Your task to perform on an android device: Open calendar and show me the second week of next month Image 0: 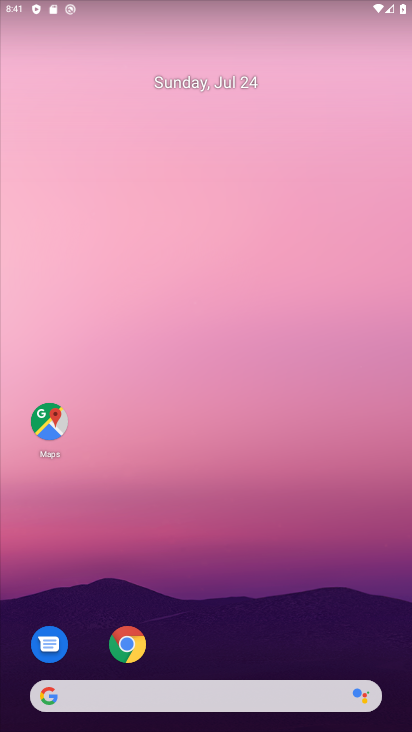
Step 0: drag from (311, 641) to (287, 128)
Your task to perform on an android device: Open calendar and show me the second week of next month Image 1: 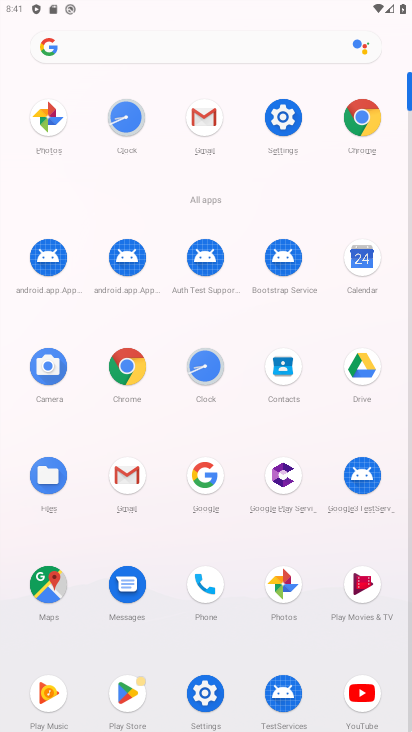
Step 1: click (356, 265)
Your task to perform on an android device: Open calendar and show me the second week of next month Image 2: 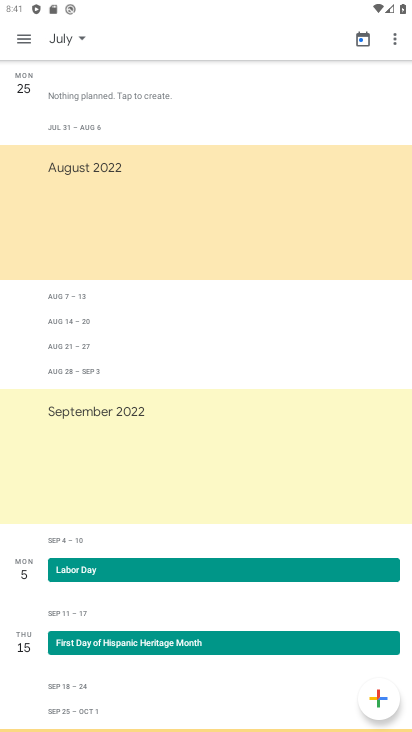
Step 2: click (54, 31)
Your task to perform on an android device: Open calendar and show me the second week of next month Image 3: 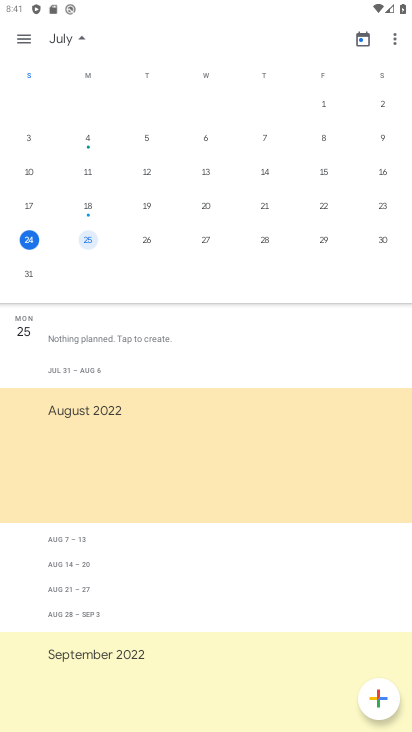
Step 3: drag from (395, 198) to (9, 262)
Your task to perform on an android device: Open calendar and show me the second week of next month Image 4: 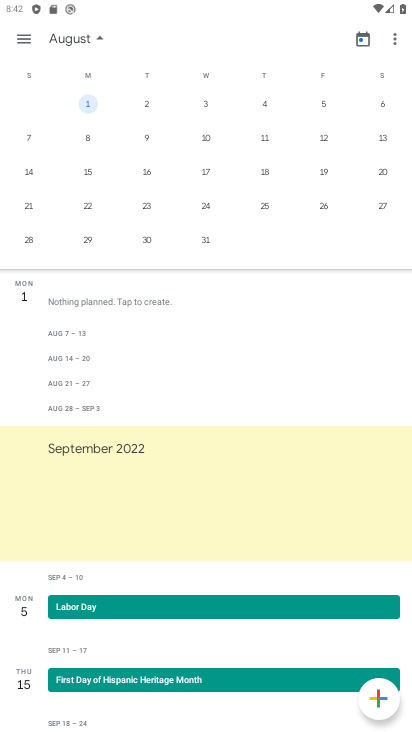
Step 4: click (316, 131)
Your task to perform on an android device: Open calendar and show me the second week of next month Image 5: 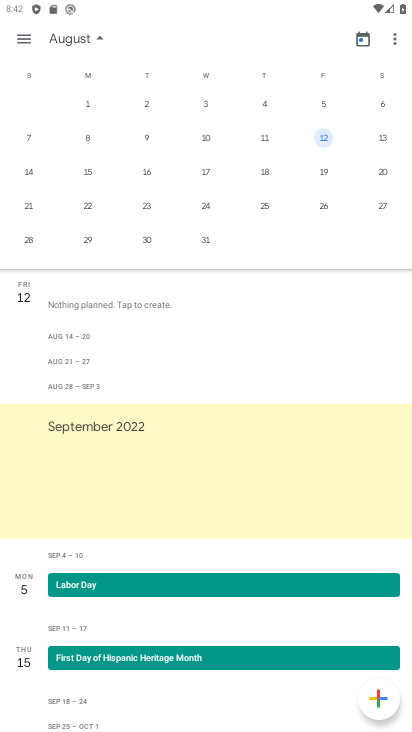
Step 5: task complete